Your task to perform on an android device: turn off notifications settings in the gmail app Image 0: 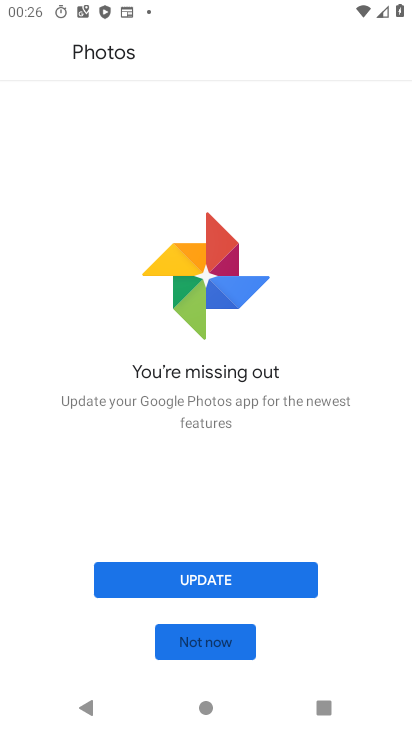
Step 0: press home button
Your task to perform on an android device: turn off notifications settings in the gmail app Image 1: 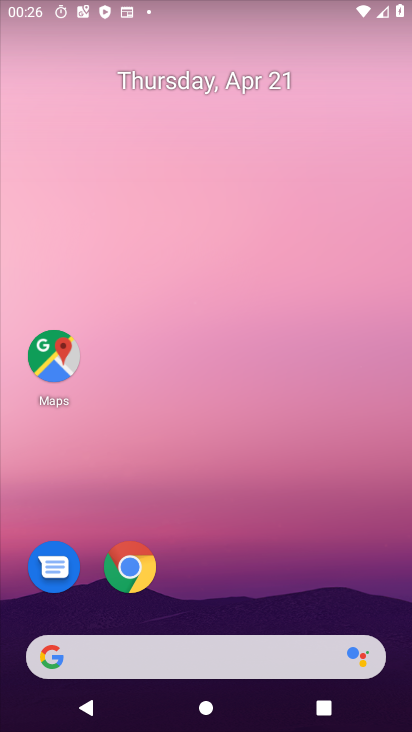
Step 1: drag from (214, 639) to (248, 257)
Your task to perform on an android device: turn off notifications settings in the gmail app Image 2: 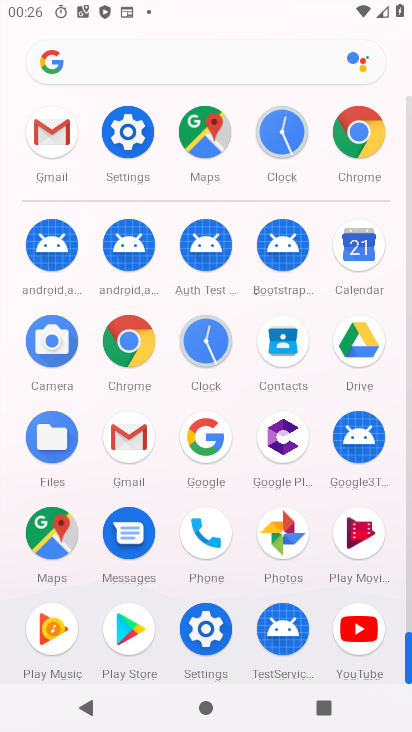
Step 2: click (53, 130)
Your task to perform on an android device: turn off notifications settings in the gmail app Image 3: 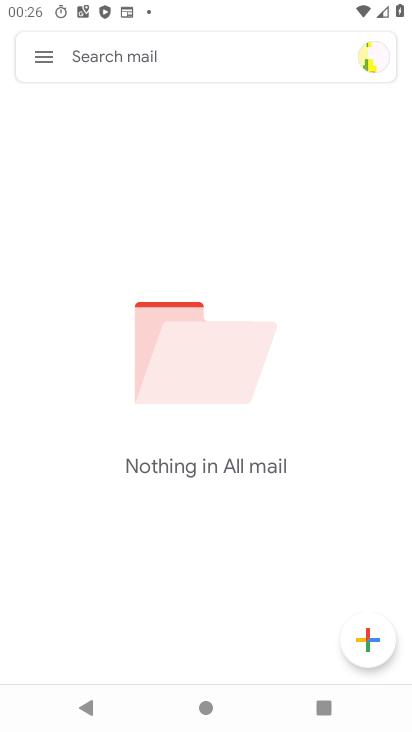
Step 3: click (49, 55)
Your task to perform on an android device: turn off notifications settings in the gmail app Image 4: 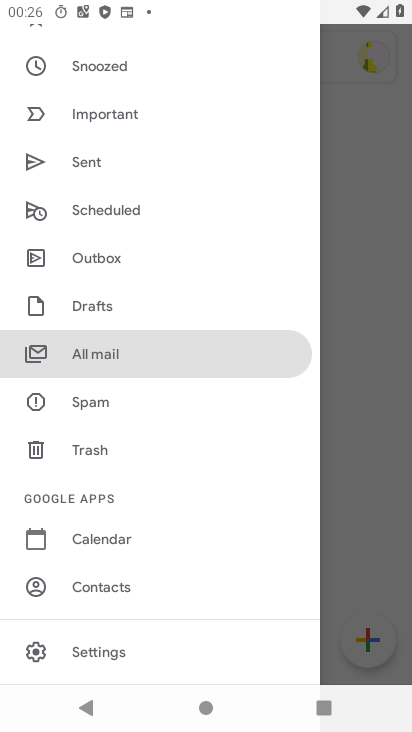
Step 4: click (83, 648)
Your task to perform on an android device: turn off notifications settings in the gmail app Image 5: 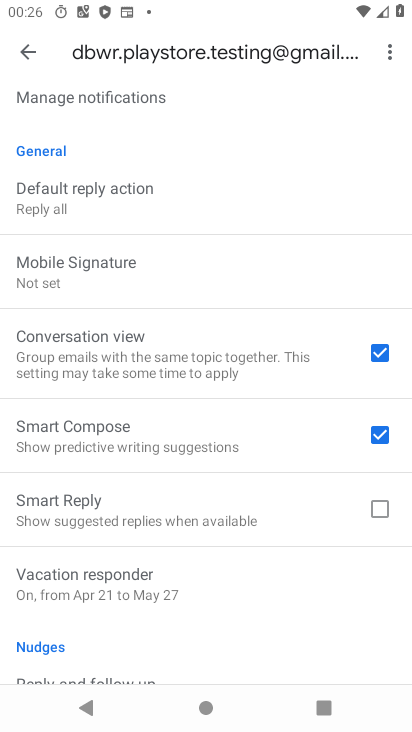
Step 5: drag from (184, 201) to (186, 637)
Your task to perform on an android device: turn off notifications settings in the gmail app Image 6: 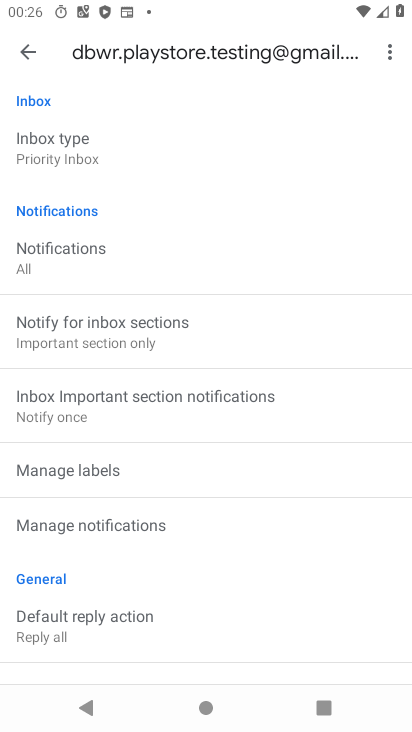
Step 6: click (76, 249)
Your task to perform on an android device: turn off notifications settings in the gmail app Image 7: 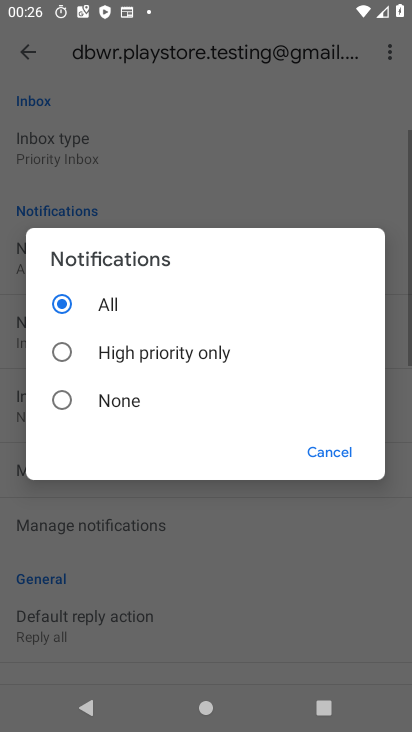
Step 7: click (105, 405)
Your task to perform on an android device: turn off notifications settings in the gmail app Image 8: 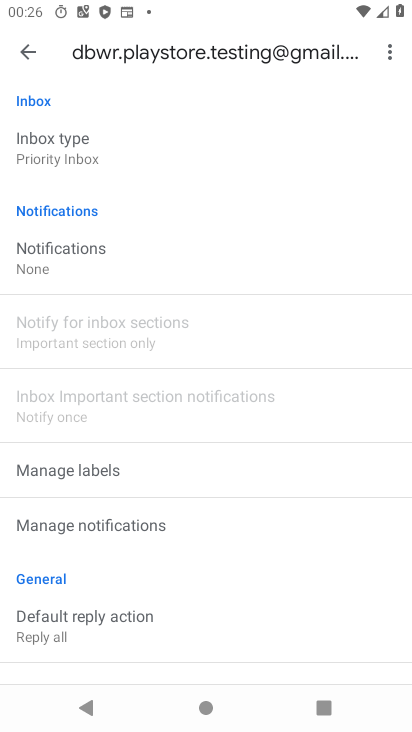
Step 8: task complete